Your task to perform on an android device: toggle sleep mode Image 0: 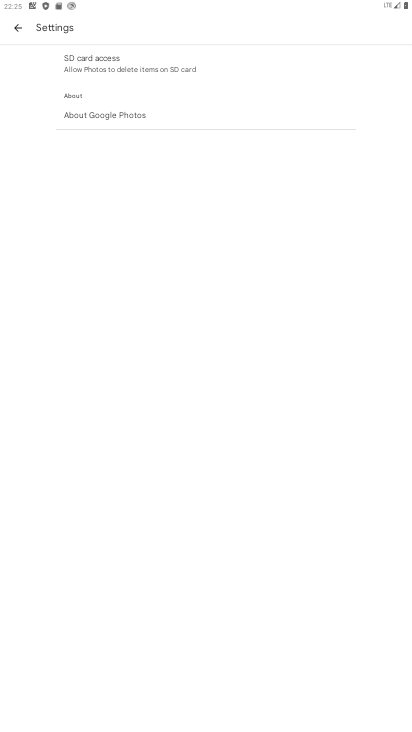
Step 0: press home button
Your task to perform on an android device: toggle sleep mode Image 1: 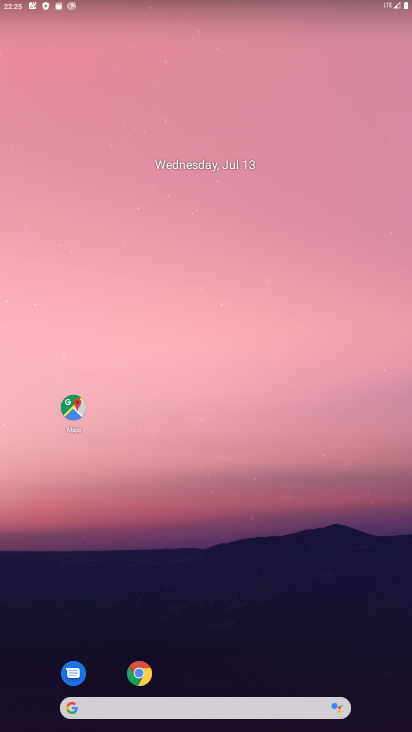
Step 1: drag from (174, 649) to (243, 179)
Your task to perform on an android device: toggle sleep mode Image 2: 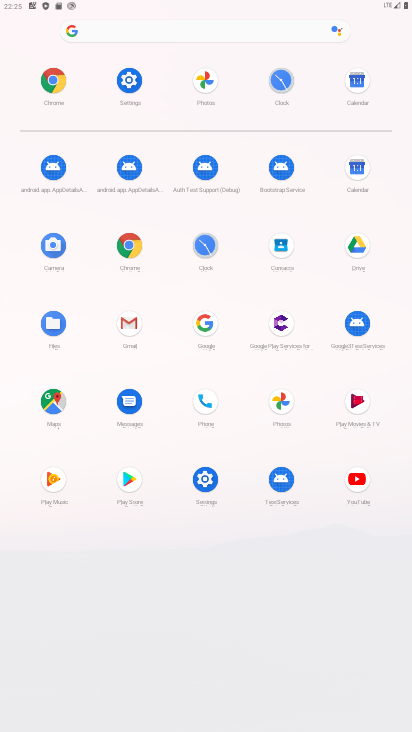
Step 2: click (212, 477)
Your task to perform on an android device: toggle sleep mode Image 3: 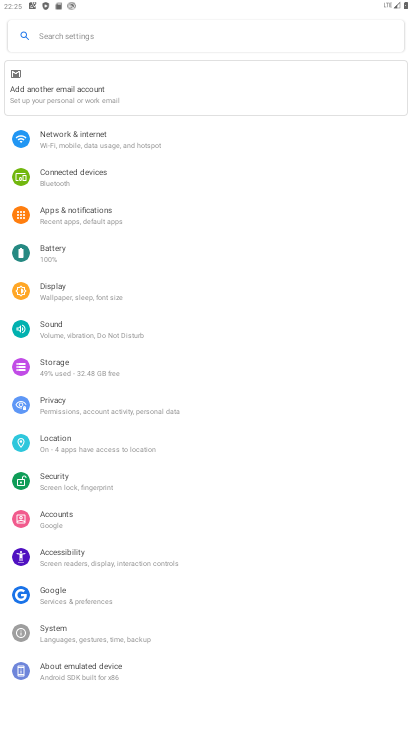
Step 3: click (43, 297)
Your task to perform on an android device: toggle sleep mode Image 4: 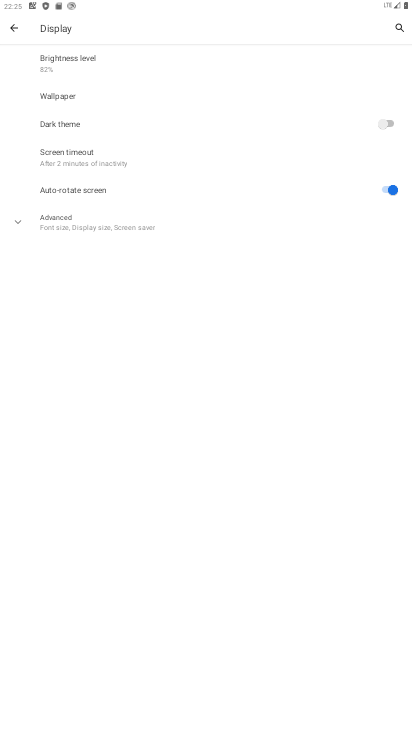
Step 4: click (164, 161)
Your task to perform on an android device: toggle sleep mode Image 5: 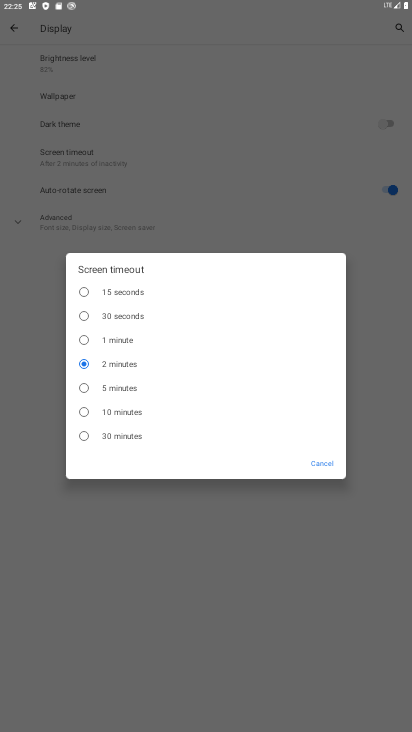
Step 5: click (86, 292)
Your task to perform on an android device: toggle sleep mode Image 6: 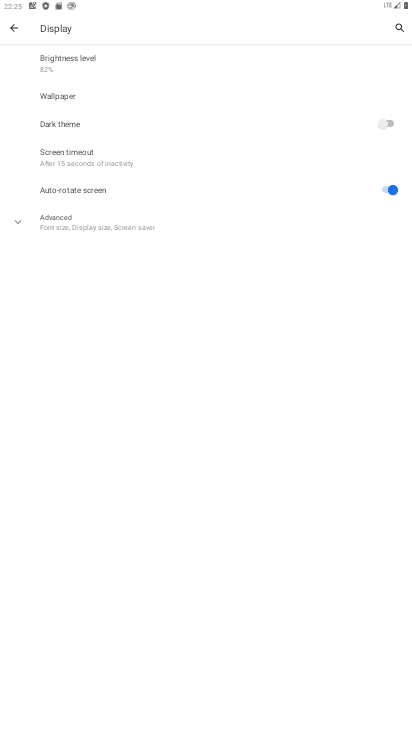
Step 6: task complete